Your task to perform on an android device: open a bookmark in the chrome app Image 0: 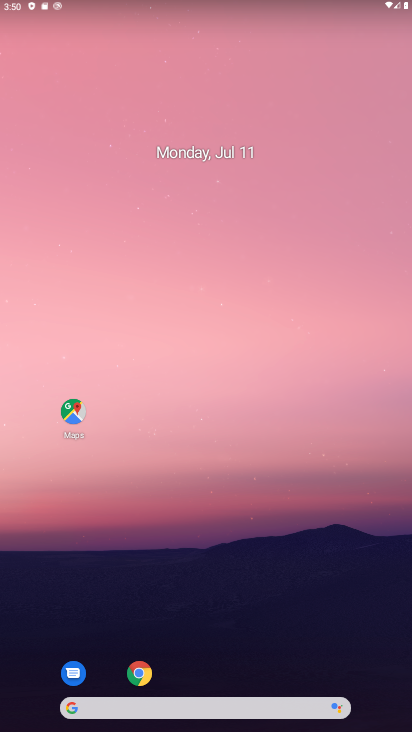
Step 0: drag from (384, 653) to (266, 48)
Your task to perform on an android device: open a bookmark in the chrome app Image 1: 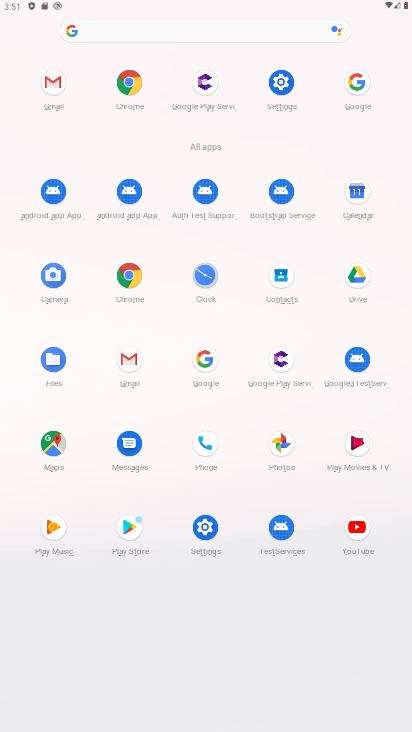
Step 1: click (117, 280)
Your task to perform on an android device: open a bookmark in the chrome app Image 2: 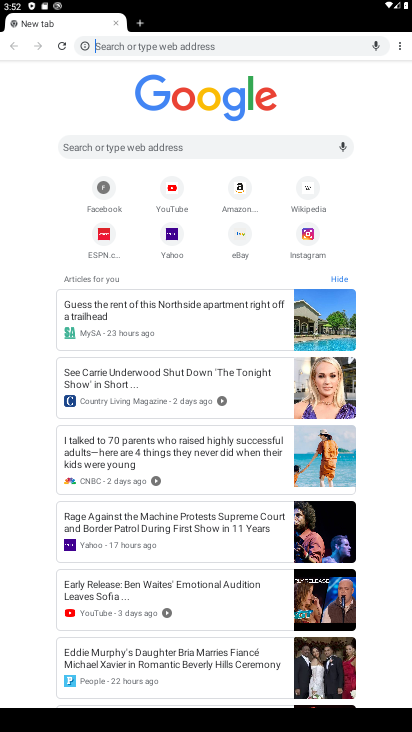
Step 2: click (398, 42)
Your task to perform on an android device: open a bookmark in the chrome app Image 3: 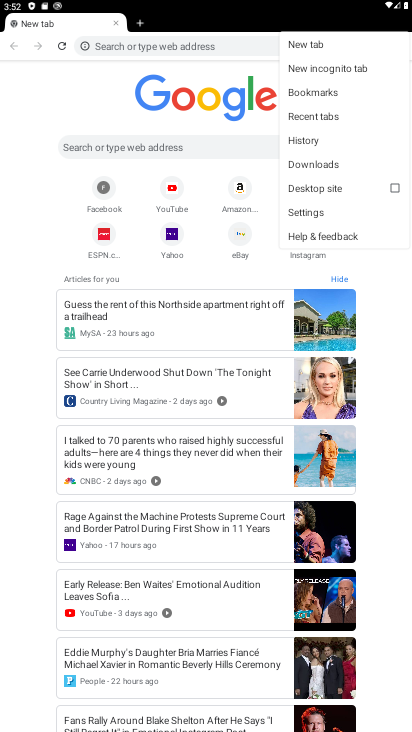
Step 3: click (306, 95)
Your task to perform on an android device: open a bookmark in the chrome app Image 4: 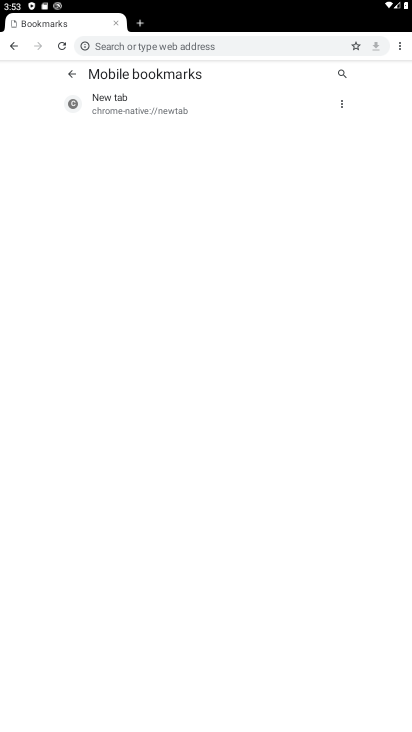
Step 4: task complete